Your task to perform on an android device: find snoozed emails in the gmail app Image 0: 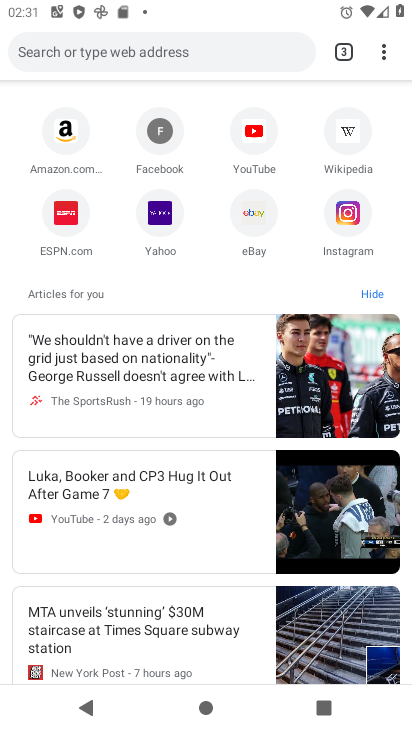
Step 0: press home button
Your task to perform on an android device: find snoozed emails in the gmail app Image 1: 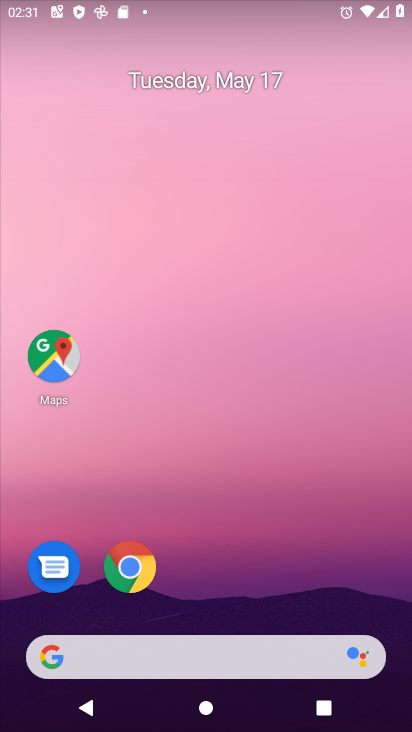
Step 1: drag from (382, 621) to (339, 233)
Your task to perform on an android device: find snoozed emails in the gmail app Image 2: 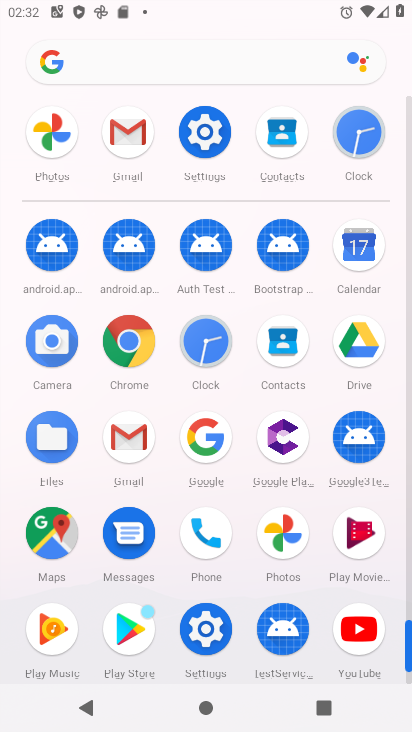
Step 2: click (126, 439)
Your task to perform on an android device: find snoozed emails in the gmail app Image 3: 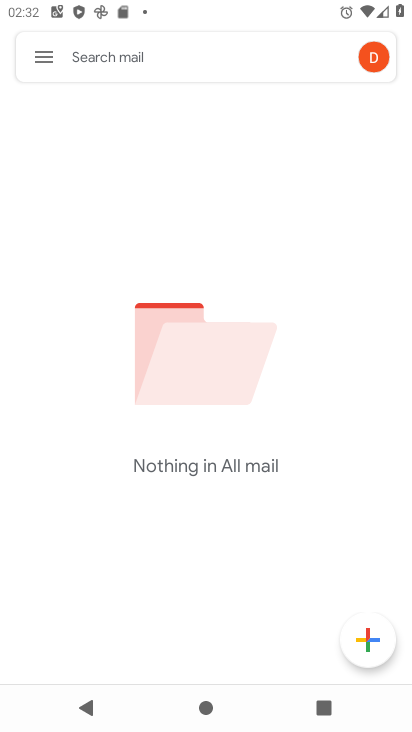
Step 3: click (38, 62)
Your task to perform on an android device: find snoozed emails in the gmail app Image 4: 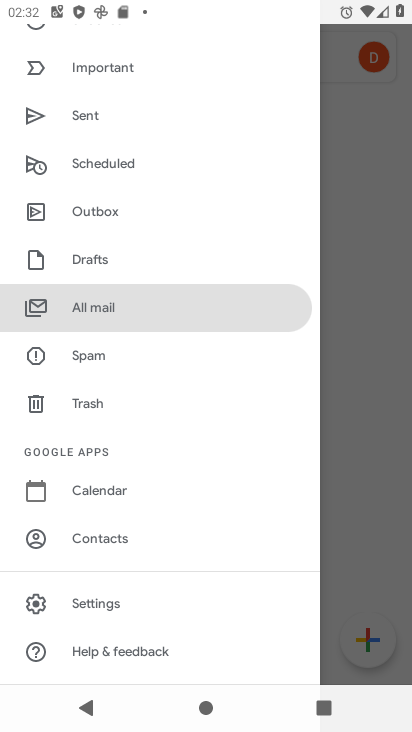
Step 4: drag from (170, 221) to (150, 448)
Your task to perform on an android device: find snoozed emails in the gmail app Image 5: 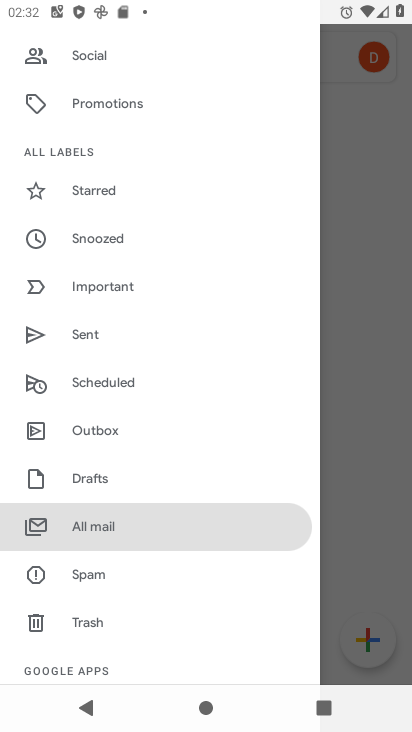
Step 5: click (92, 248)
Your task to perform on an android device: find snoozed emails in the gmail app Image 6: 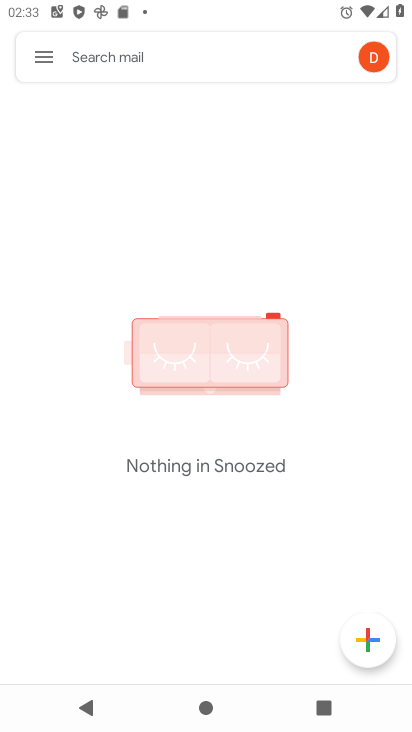
Step 6: task complete